Your task to perform on an android device: open sync settings in chrome Image 0: 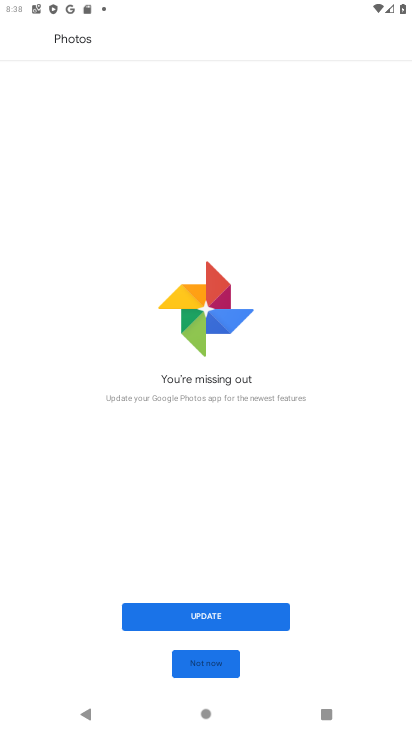
Step 0: press home button
Your task to perform on an android device: open sync settings in chrome Image 1: 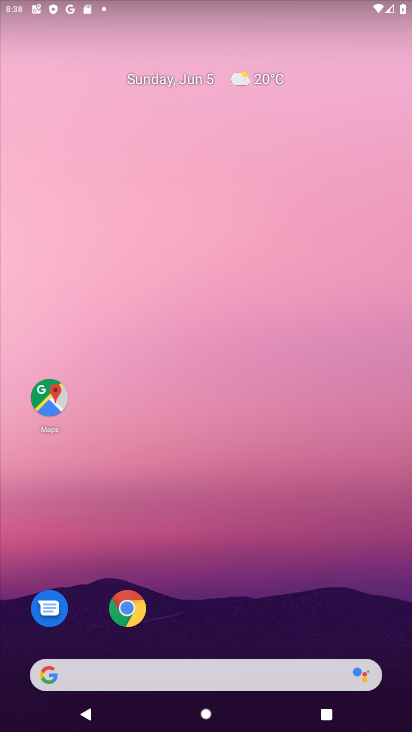
Step 1: click (134, 614)
Your task to perform on an android device: open sync settings in chrome Image 2: 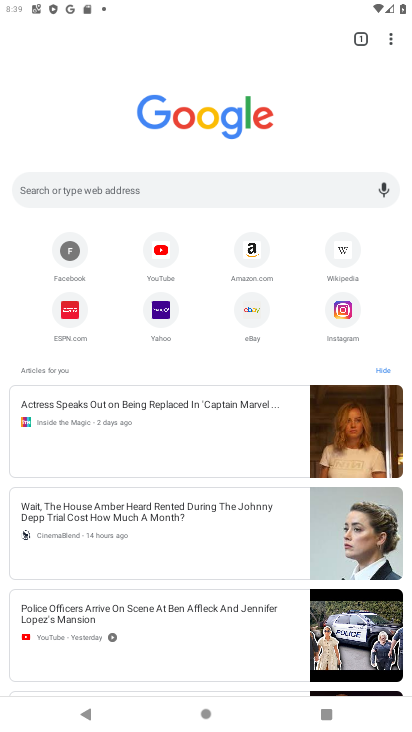
Step 2: click (388, 35)
Your task to perform on an android device: open sync settings in chrome Image 3: 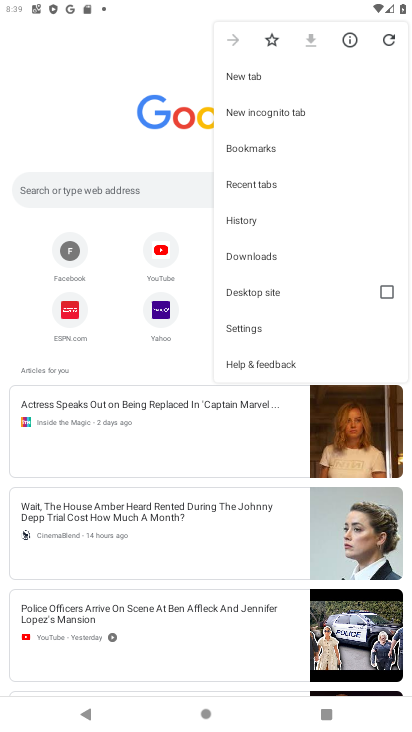
Step 3: click (247, 322)
Your task to perform on an android device: open sync settings in chrome Image 4: 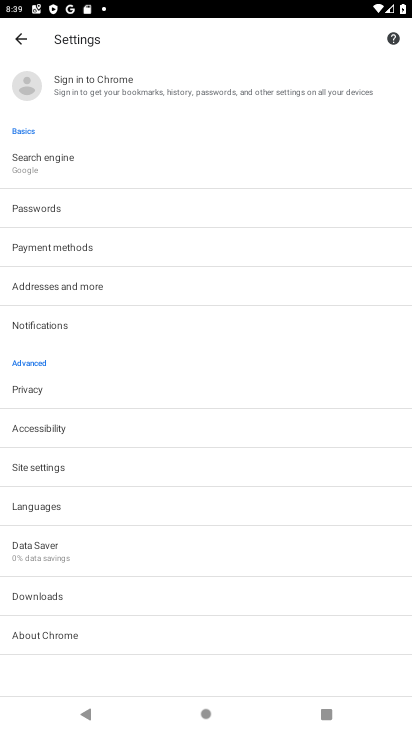
Step 4: click (87, 473)
Your task to perform on an android device: open sync settings in chrome Image 5: 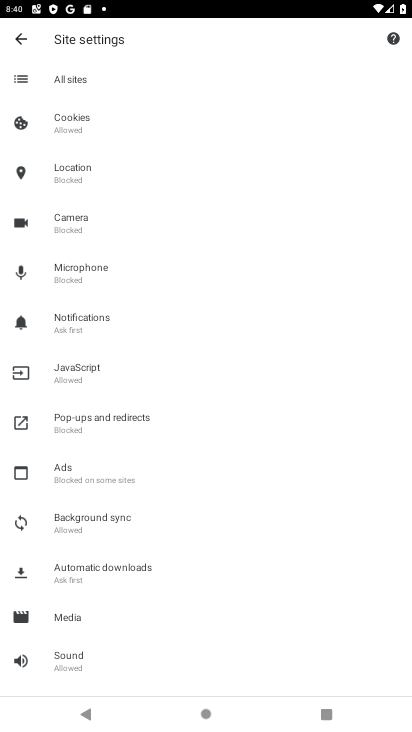
Step 5: click (77, 523)
Your task to perform on an android device: open sync settings in chrome Image 6: 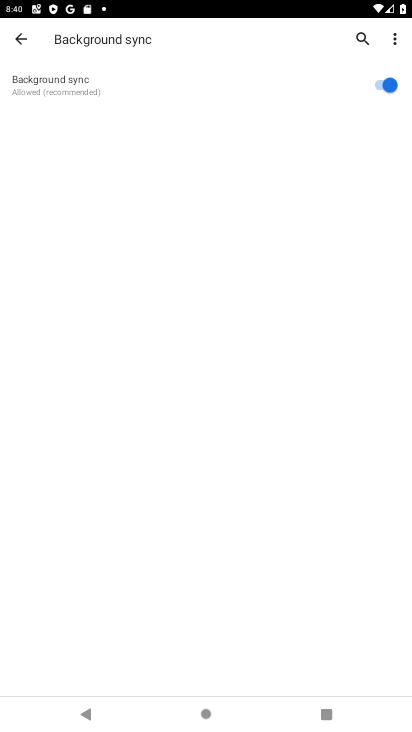
Step 6: click (95, 93)
Your task to perform on an android device: open sync settings in chrome Image 7: 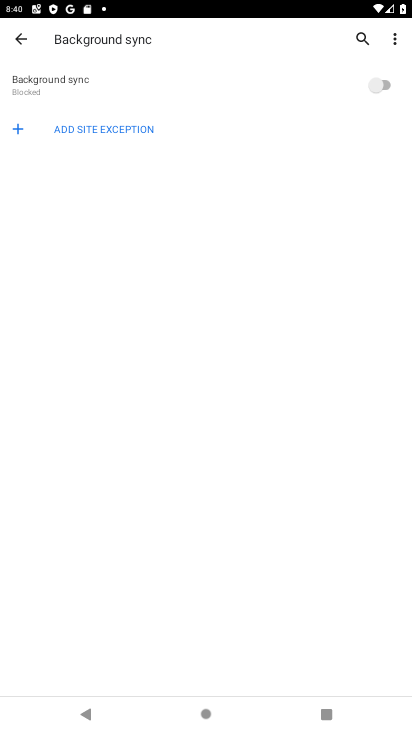
Step 7: click (379, 79)
Your task to perform on an android device: open sync settings in chrome Image 8: 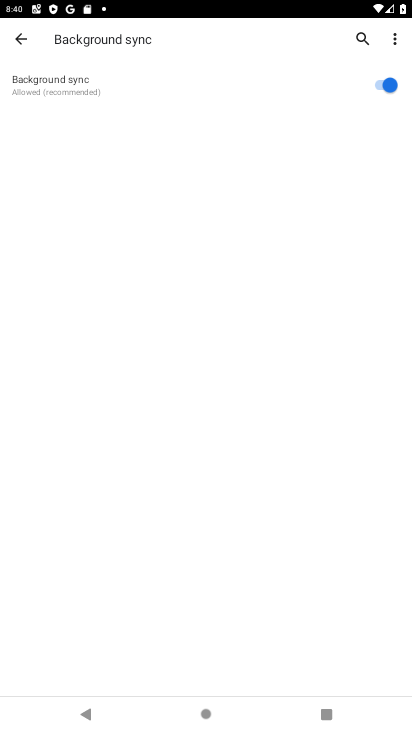
Step 8: task complete